Your task to perform on an android device: Open Google Maps and go to "Timeline" Image 0: 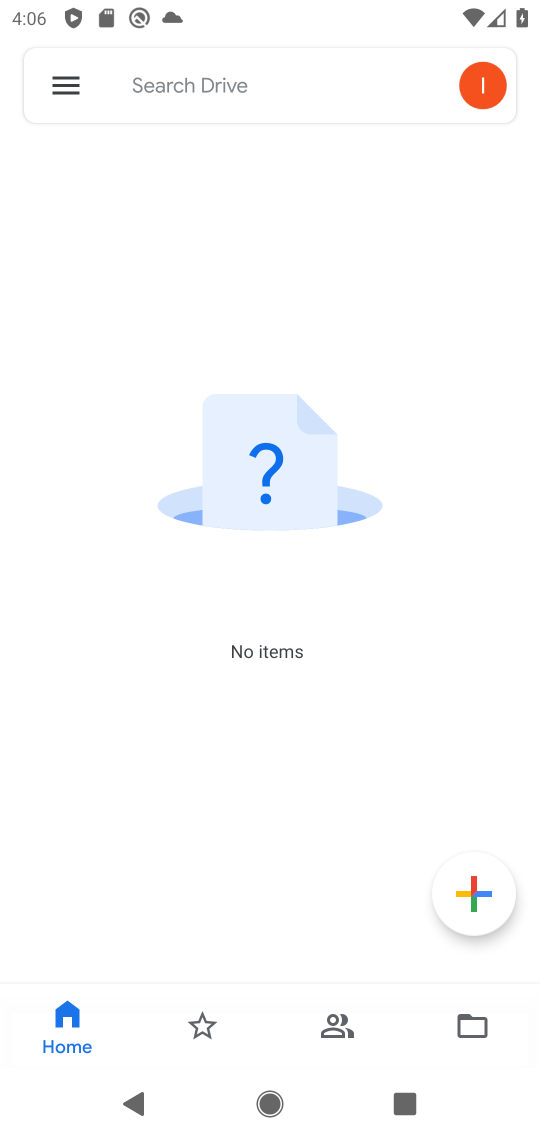
Step 0: press home button
Your task to perform on an android device: Open Google Maps and go to "Timeline" Image 1: 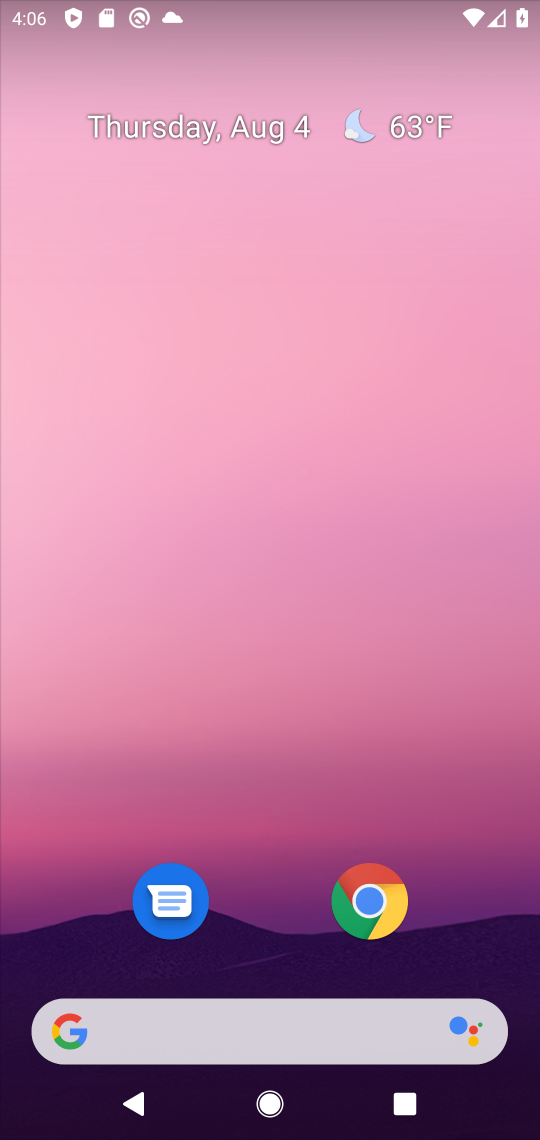
Step 1: drag from (311, 920) to (311, 527)
Your task to perform on an android device: Open Google Maps and go to "Timeline" Image 2: 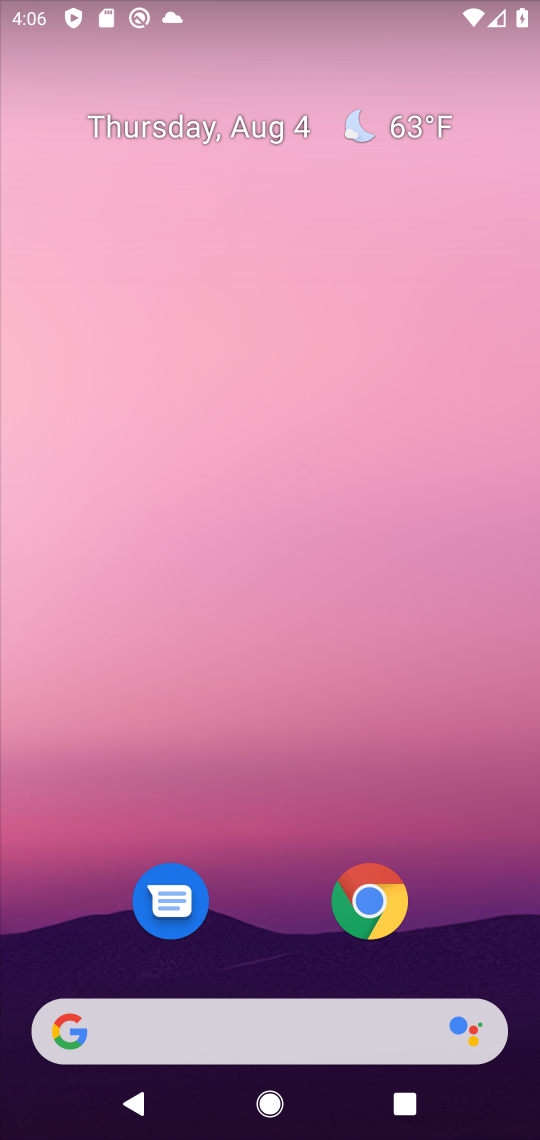
Step 2: drag from (317, 823) to (351, 81)
Your task to perform on an android device: Open Google Maps and go to "Timeline" Image 3: 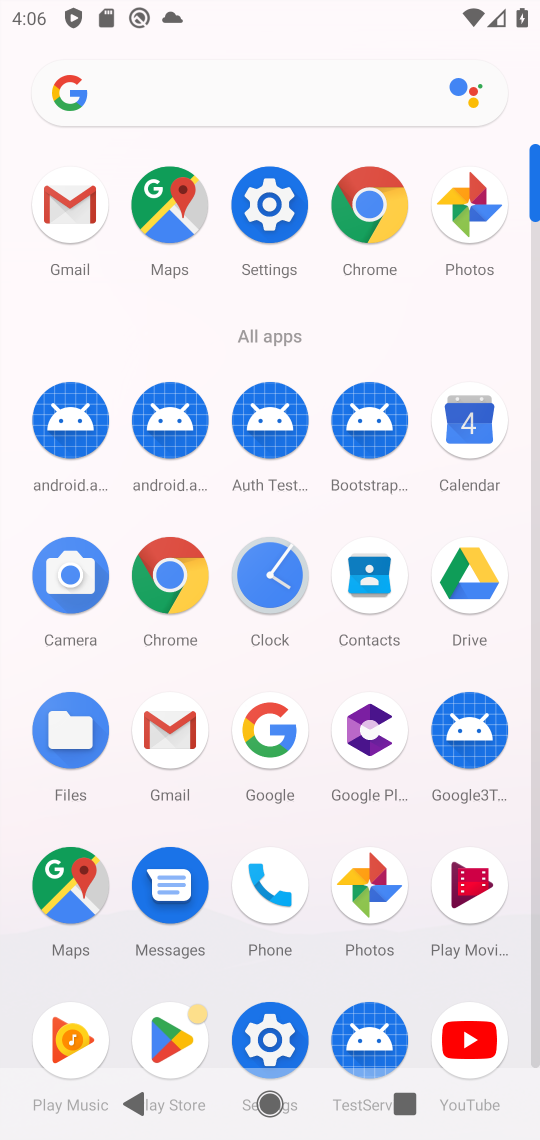
Step 3: click (47, 879)
Your task to perform on an android device: Open Google Maps and go to "Timeline" Image 4: 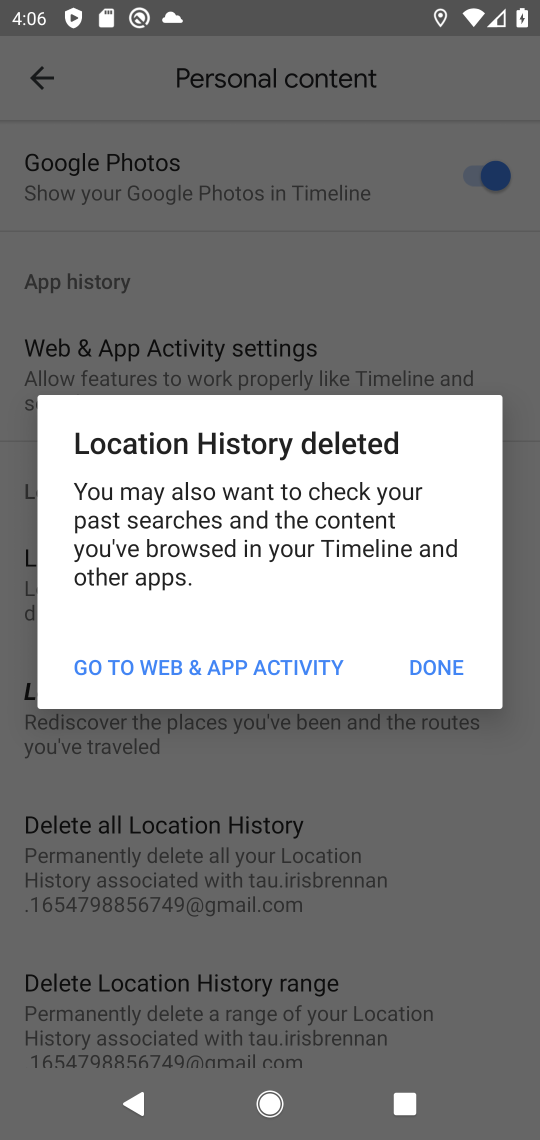
Step 4: click (441, 665)
Your task to perform on an android device: Open Google Maps and go to "Timeline" Image 5: 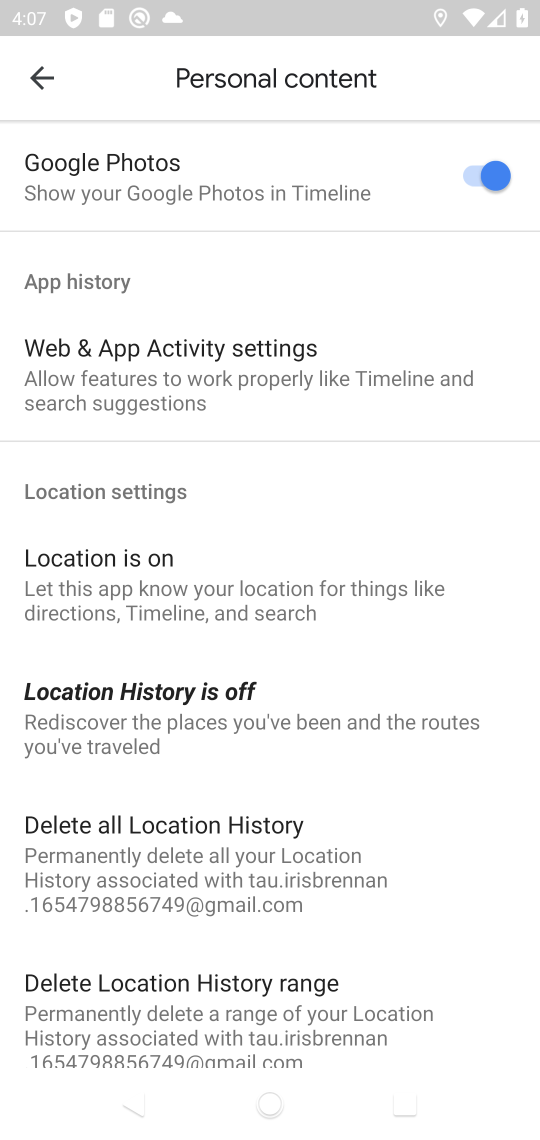
Step 5: click (37, 73)
Your task to perform on an android device: Open Google Maps and go to "Timeline" Image 6: 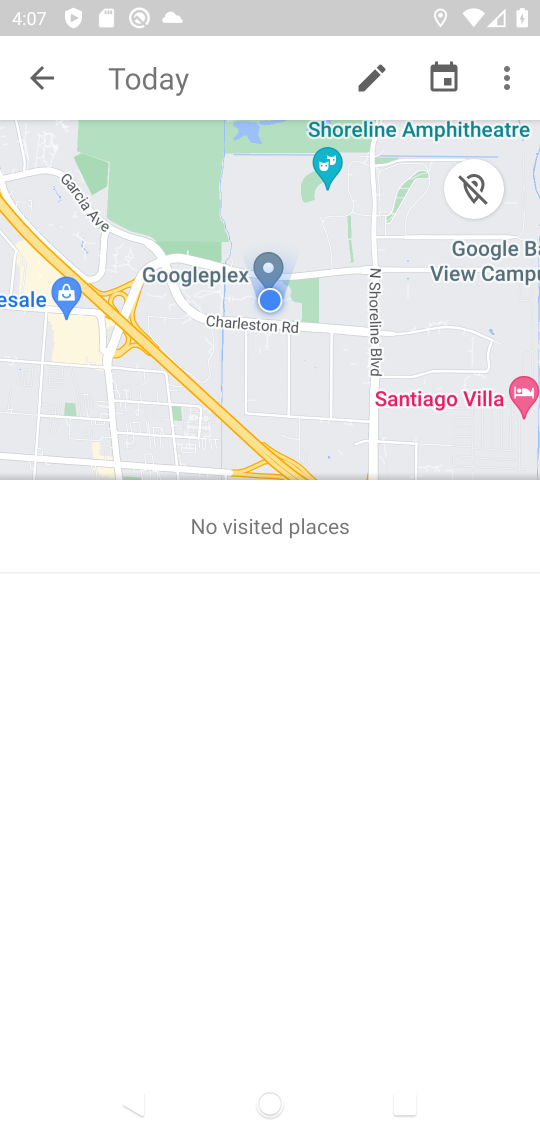
Step 6: task complete